Your task to perform on an android device: add a label to a message in the gmail app Image 0: 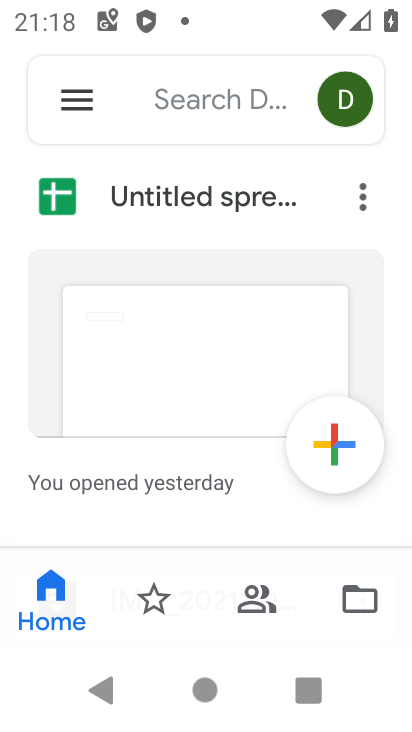
Step 0: press home button
Your task to perform on an android device: add a label to a message in the gmail app Image 1: 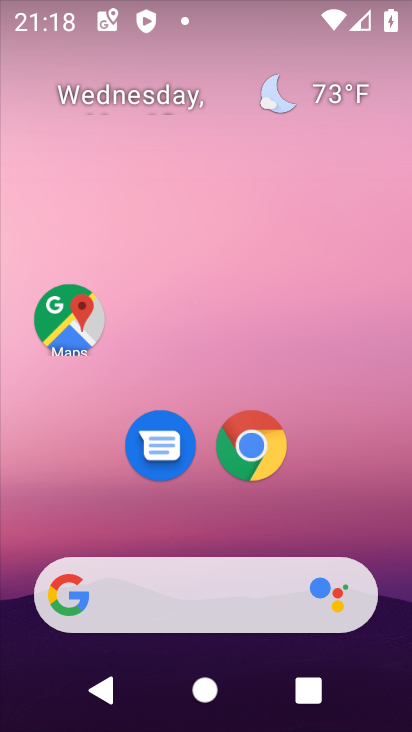
Step 1: drag from (316, 519) to (352, 110)
Your task to perform on an android device: add a label to a message in the gmail app Image 2: 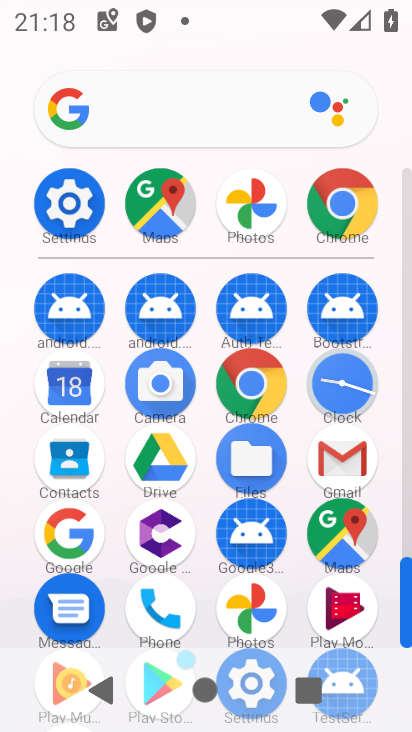
Step 2: click (352, 459)
Your task to perform on an android device: add a label to a message in the gmail app Image 3: 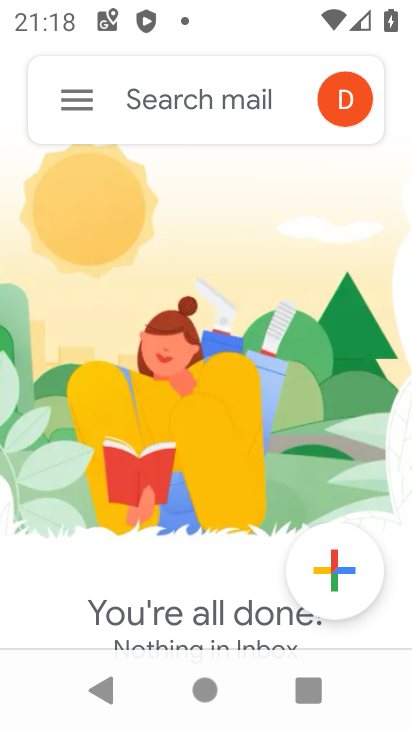
Step 3: click (73, 100)
Your task to perform on an android device: add a label to a message in the gmail app Image 4: 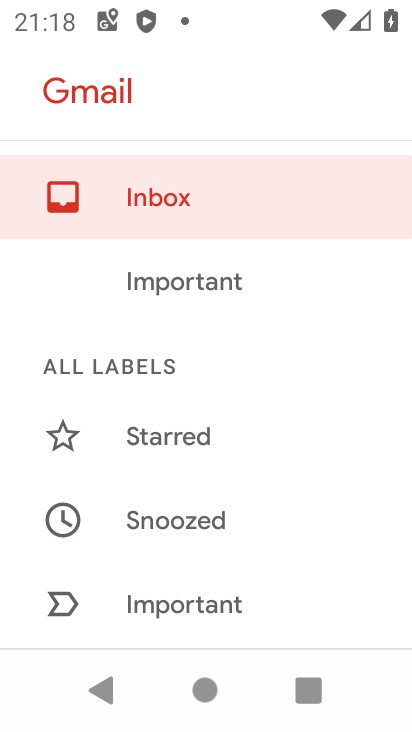
Step 4: drag from (208, 602) to (277, 209)
Your task to perform on an android device: add a label to a message in the gmail app Image 5: 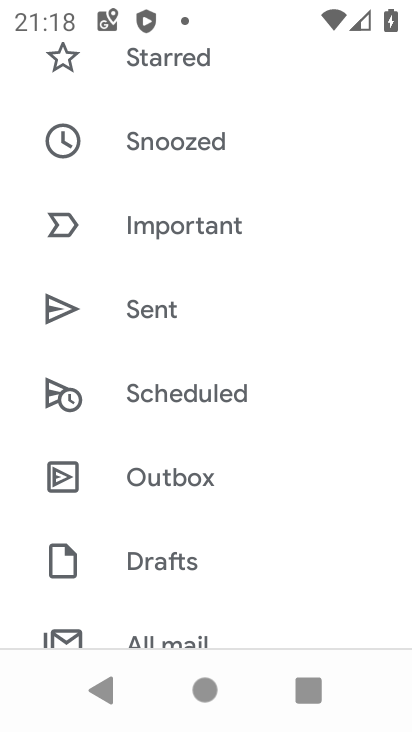
Step 5: click (163, 632)
Your task to perform on an android device: add a label to a message in the gmail app Image 6: 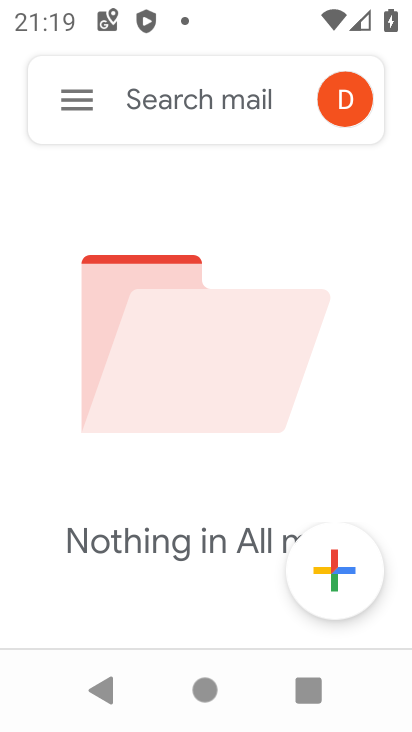
Step 6: task complete